Your task to perform on an android device: Add bose quietcomfort 35 to the cart on costco.com Image 0: 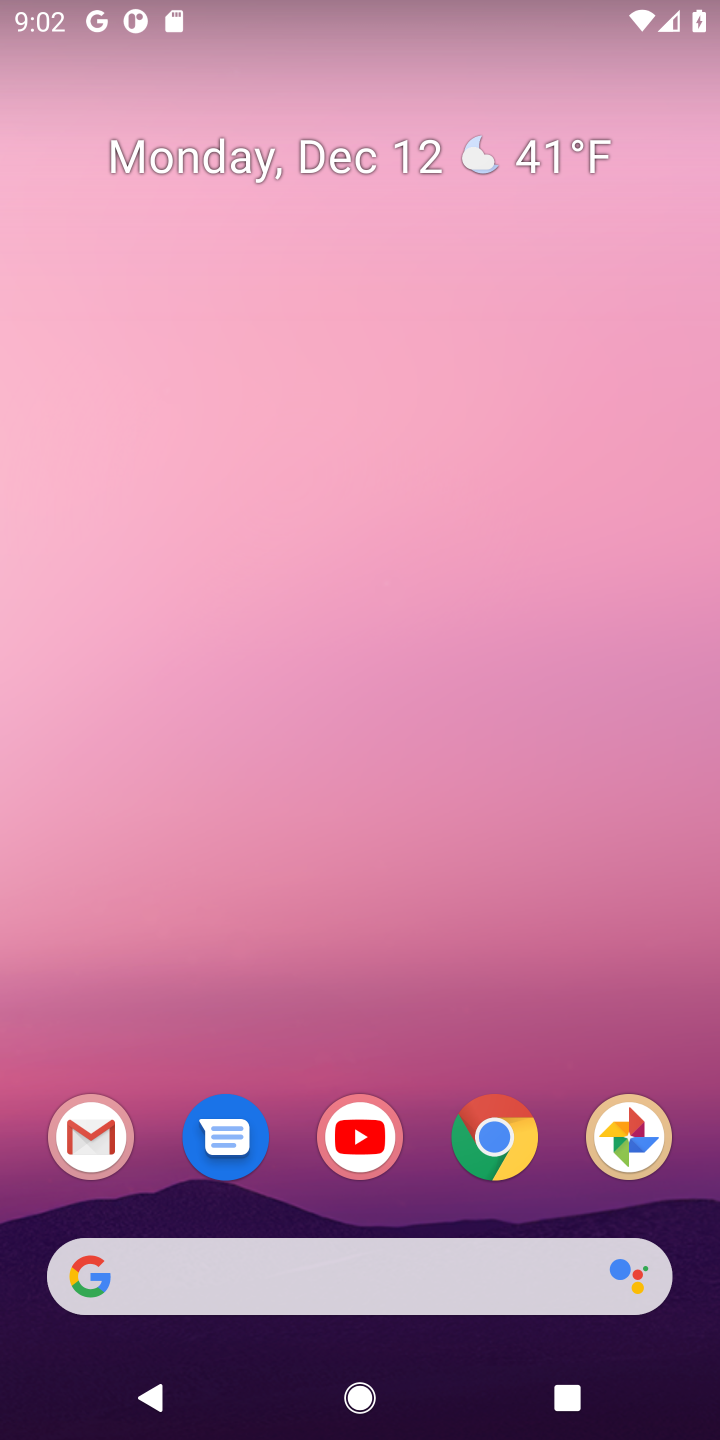
Step 0: click (504, 1135)
Your task to perform on an android device: Add bose quietcomfort 35 to the cart on costco.com Image 1: 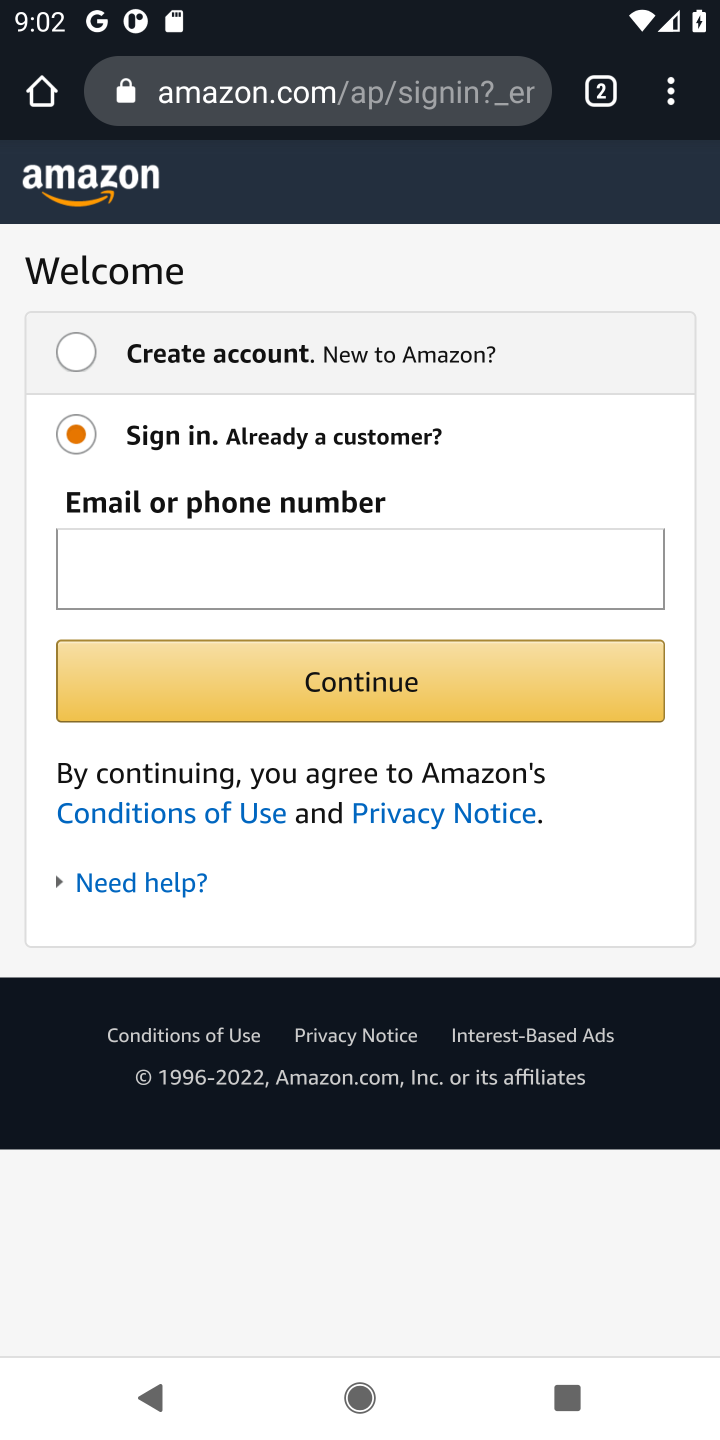
Step 1: click (365, 96)
Your task to perform on an android device: Add bose quietcomfort 35 to the cart on costco.com Image 2: 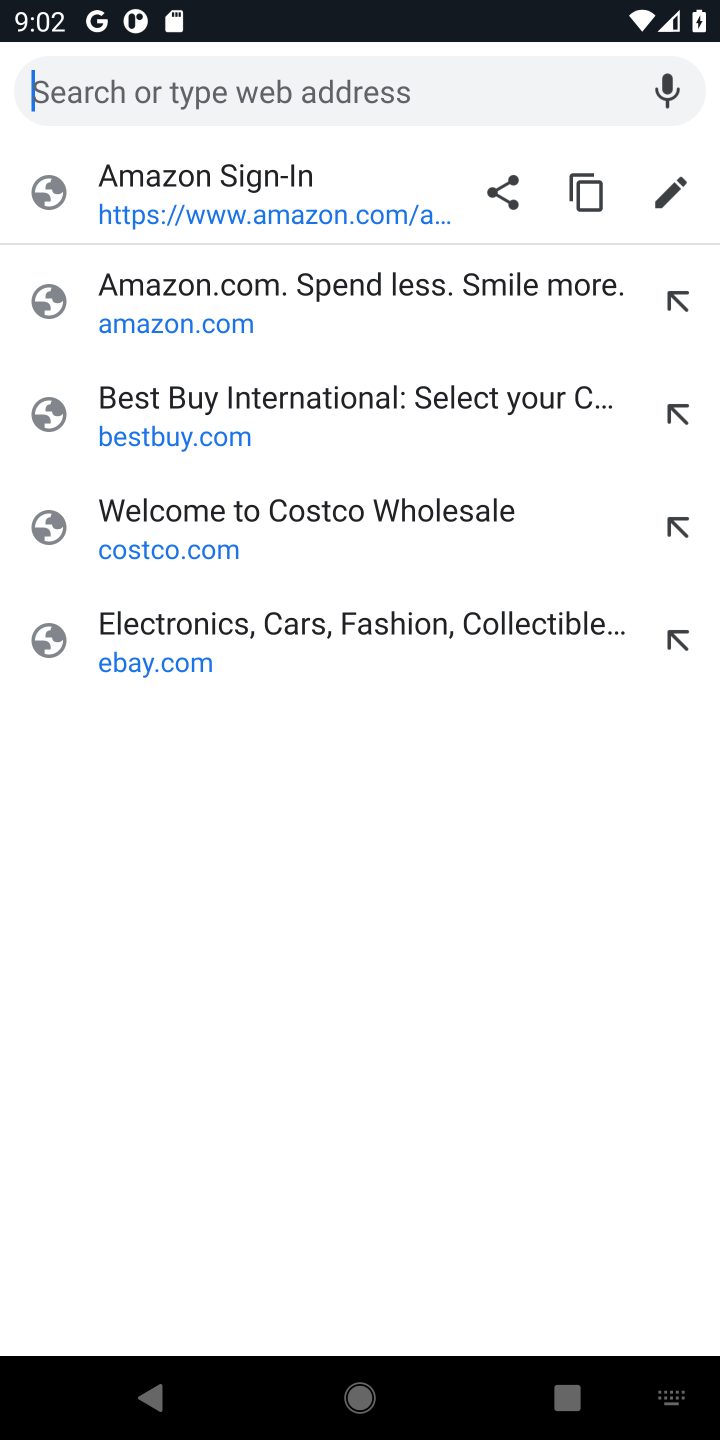
Step 2: click (370, 532)
Your task to perform on an android device: Add bose quietcomfort 35 to the cart on costco.com Image 3: 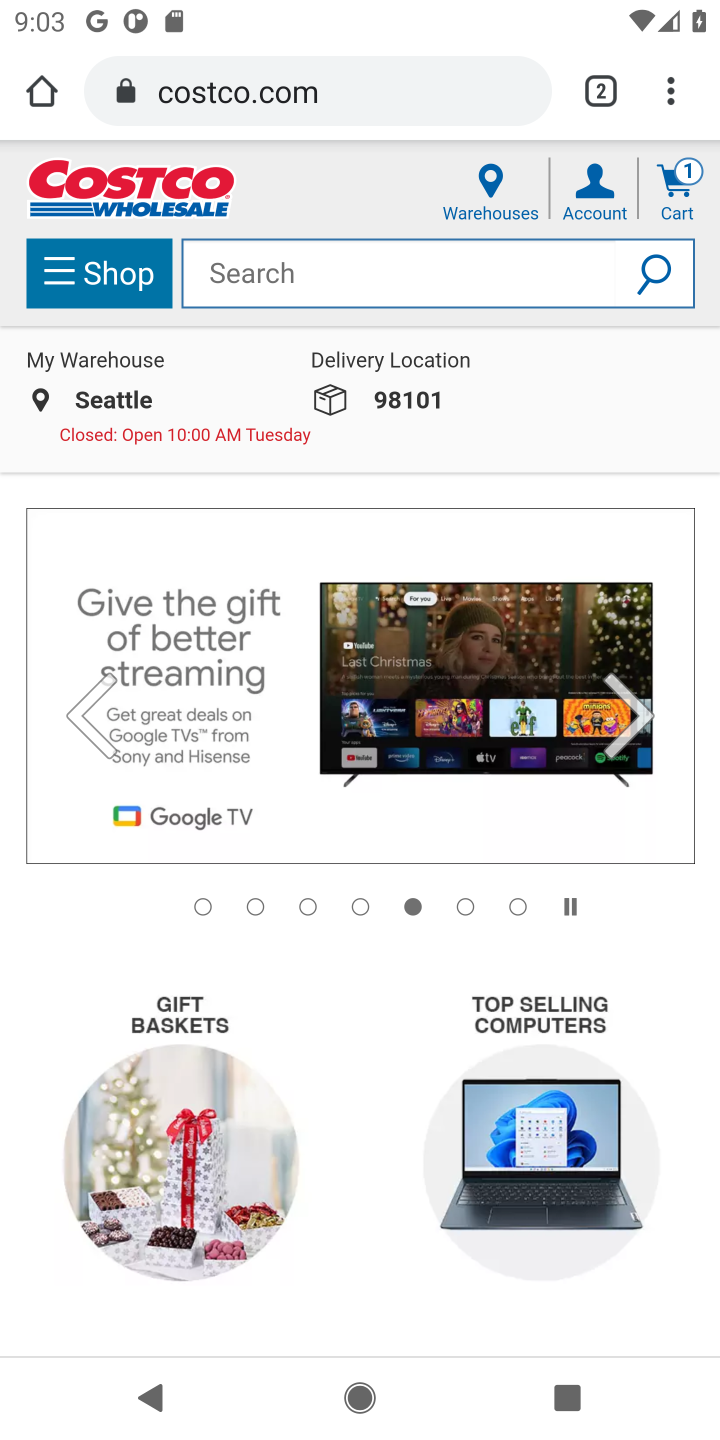
Step 3: click (476, 264)
Your task to perform on an android device: Add bose quietcomfort 35 to the cart on costco.com Image 4: 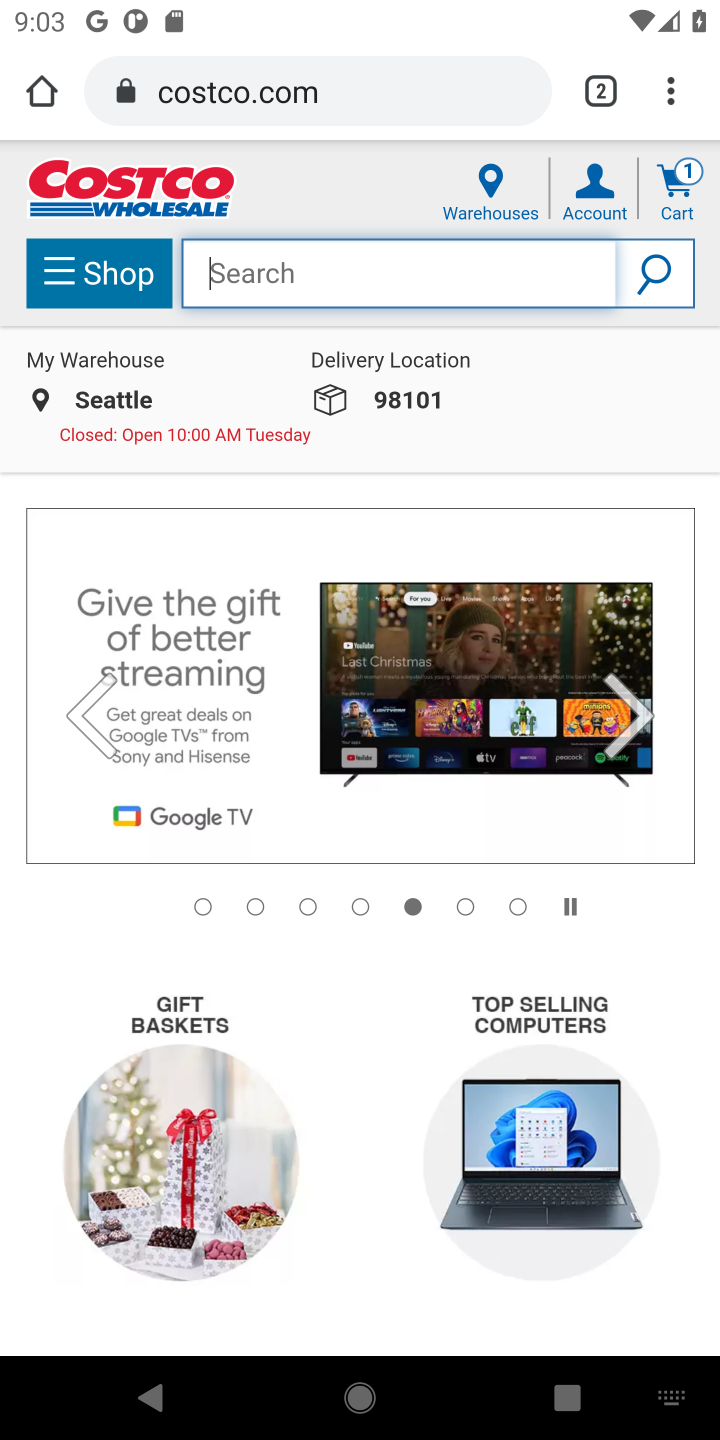
Step 4: type "bose quietcomfort 35"
Your task to perform on an android device: Add bose quietcomfort 35 to the cart on costco.com Image 5: 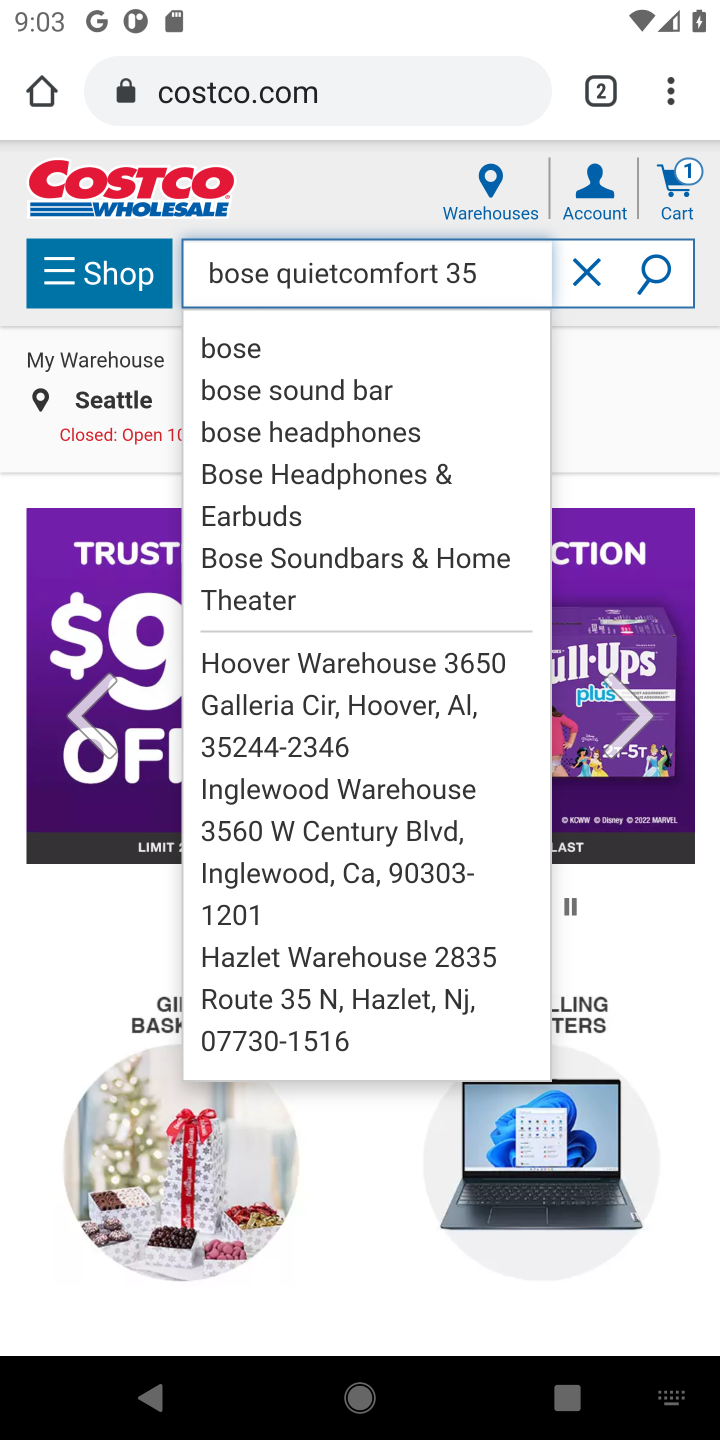
Step 5: click (249, 351)
Your task to perform on an android device: Add bose quietcomfort 35 to the cart on costco.com Image 6: 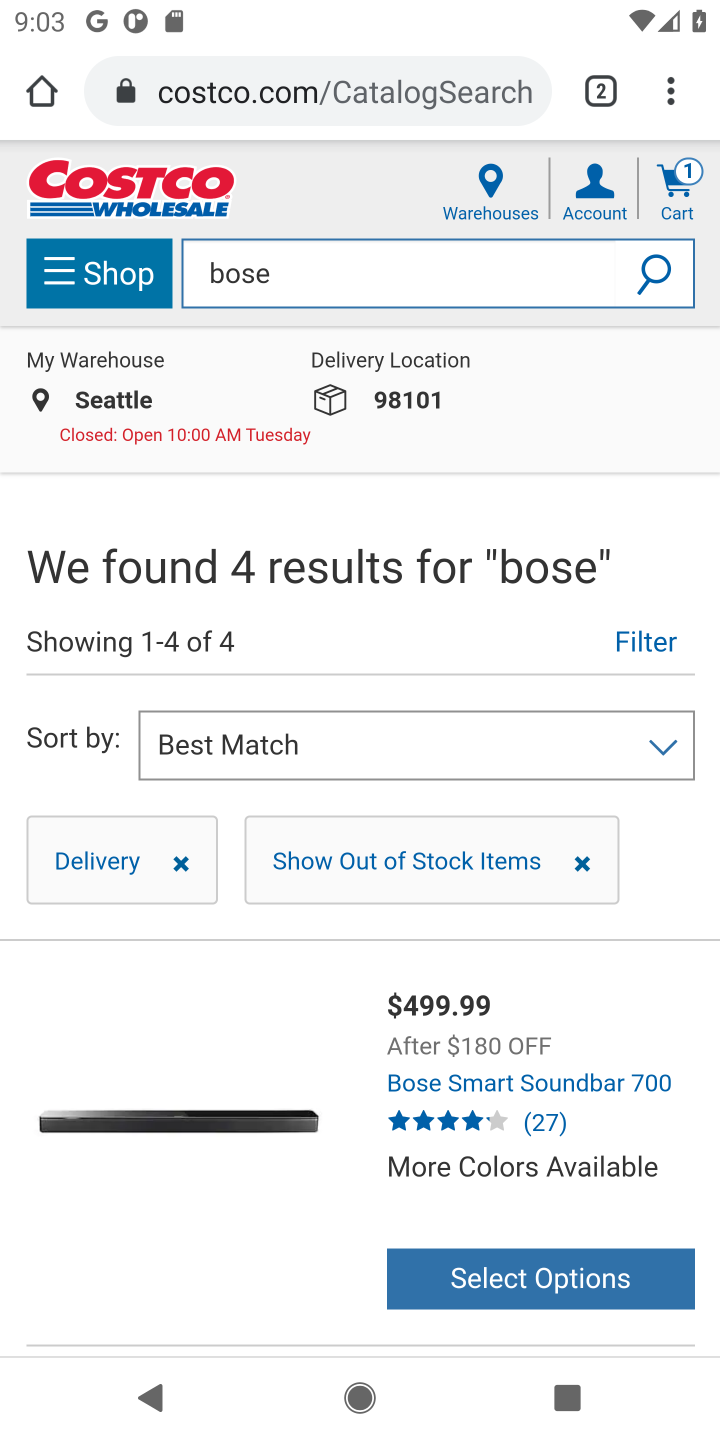
Step 6: click (589, 1040)
Your task to perform on an android device: Add bose quietcomfort 35 to the cart on costco.com Image 7: 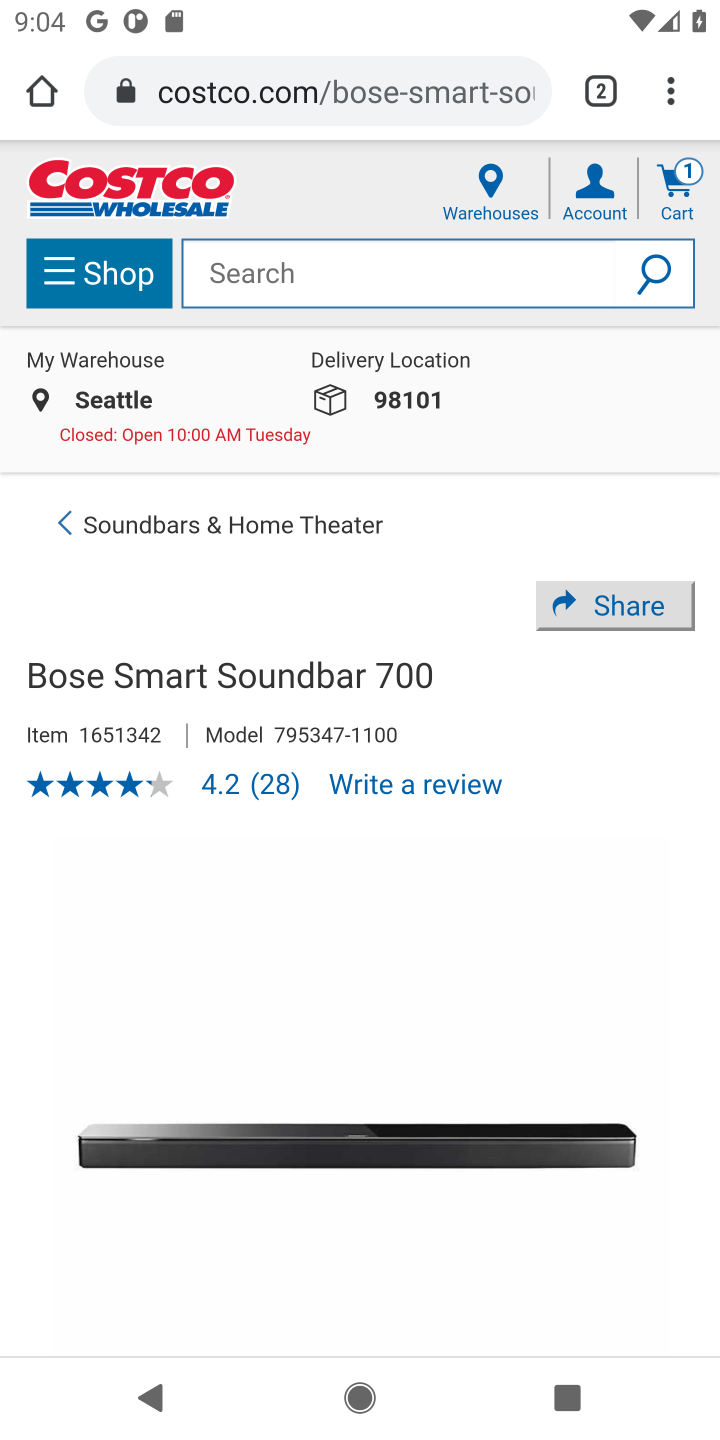
Step 7: drag from (560, 923) to (530, 200)
Your task to perform on an android device: Add bose quietcomfort 35 to the cart on costco.com Image 8: 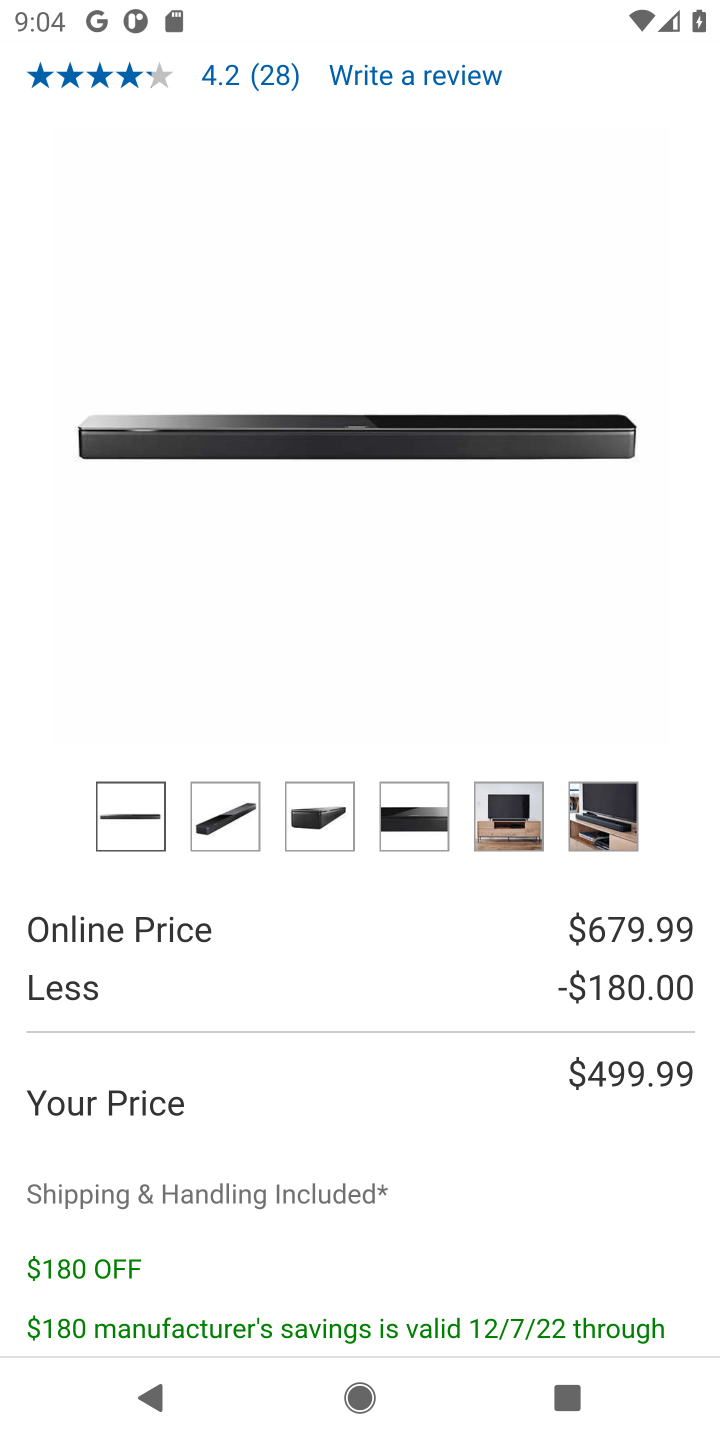
Step 8: drag from (455, 1175) to (492, 155)
Your task to perform on an android device: Add bose quietcomfort 35 to the cart on costco.com Image 9: 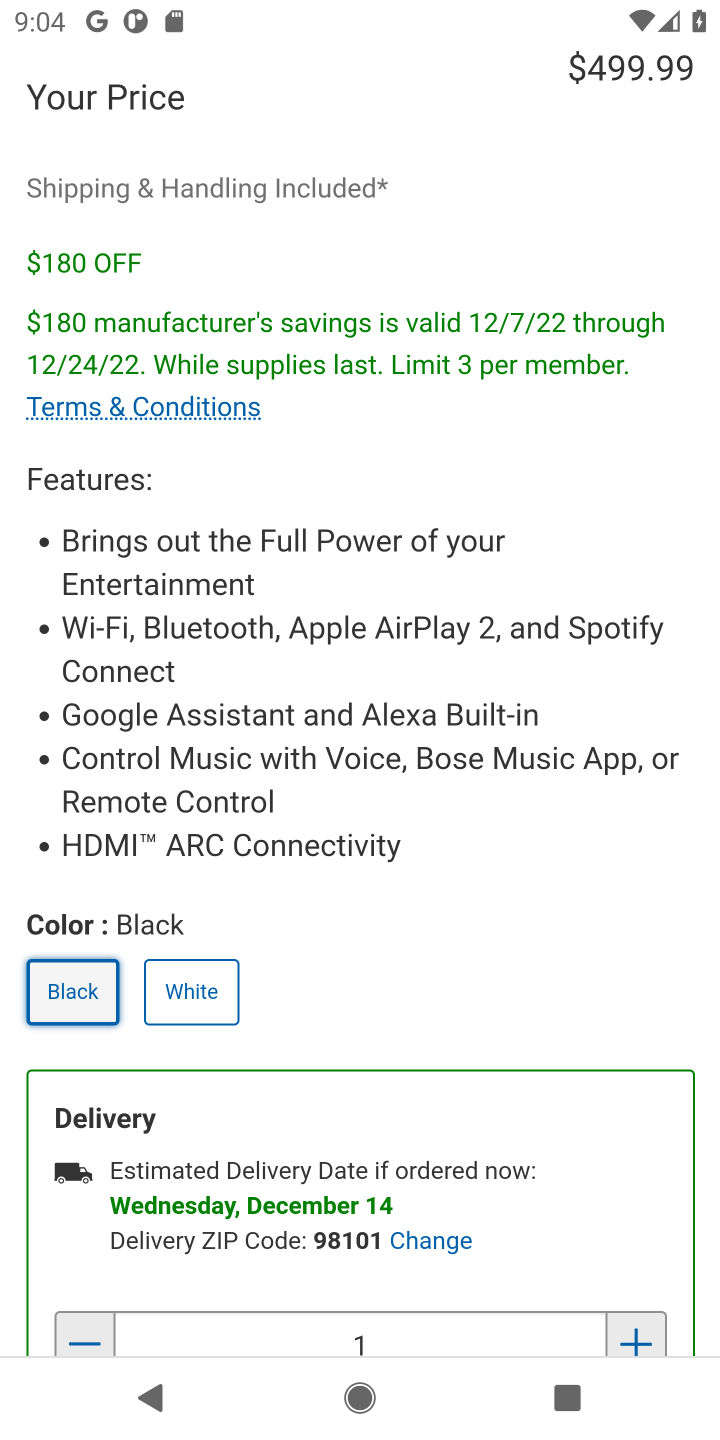
Step 9: drag from (470, 1091) to (469, 96)
Your task to perform on an android device: Add bose quietcomfort 35 to the cart on costco.com Image 10: 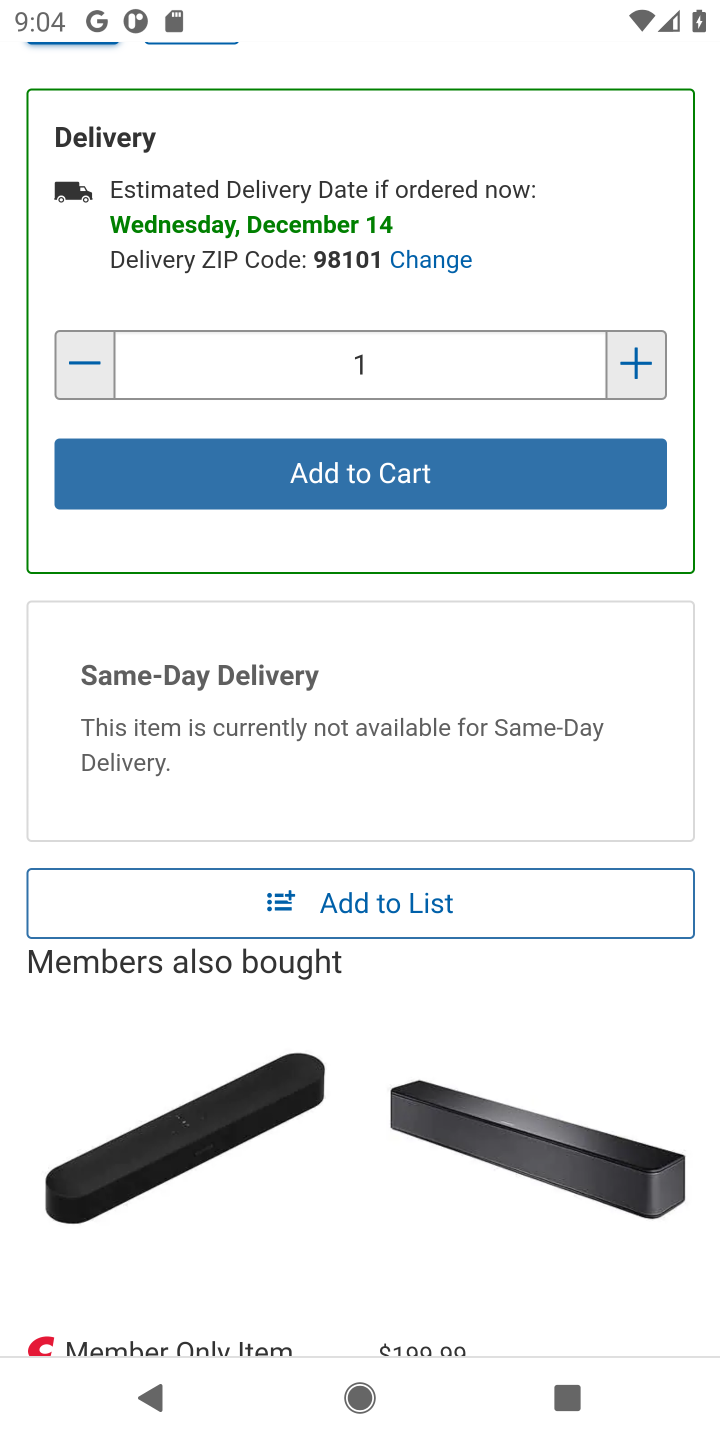
Step 10: click (343, 481)
Your task to perform on an android device: Add bose quietcomfort 35 to the cart on costco.com Image 11: 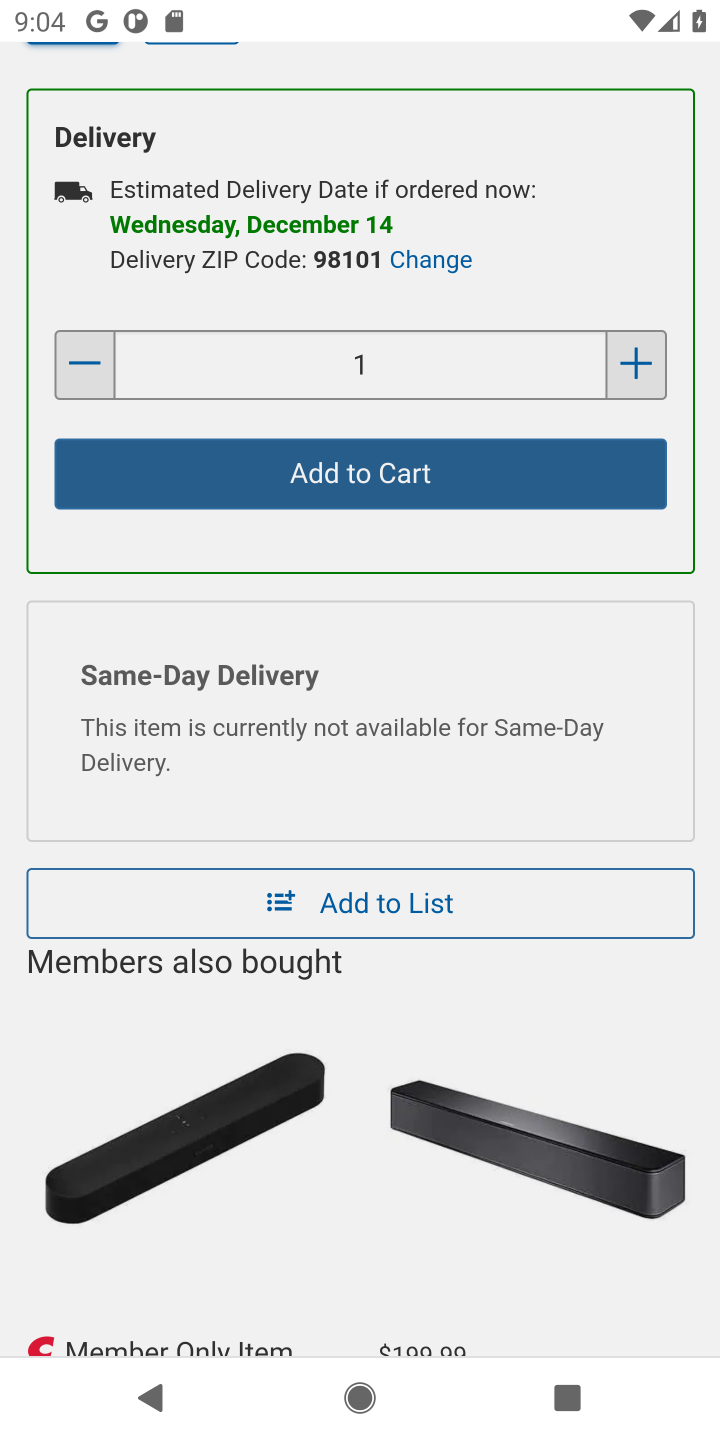
Step 11: task complete